Your task to perform on an android device: toggle airplane mode Image 0: 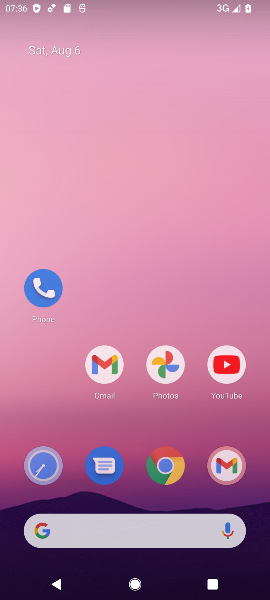
Step 0: press home button
Your task to perform on an android device: toggle airplane mode Image 1: 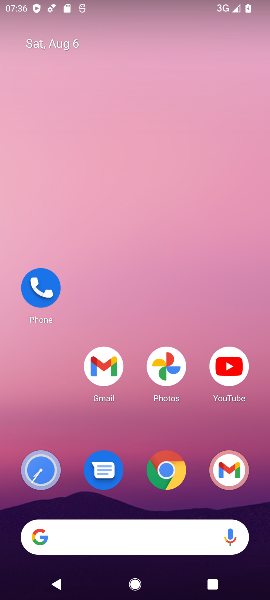
Step 1: drag from (116, 422) to (151, 11)
Your task to perform on an android device: toggle airplane mode Image 2: 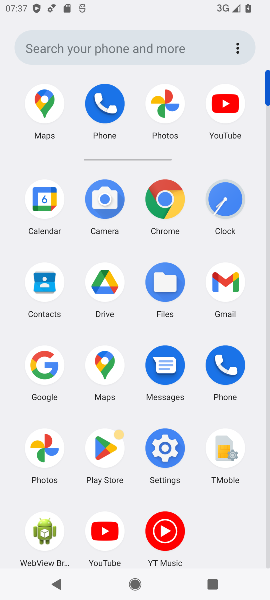
Step 2: drag from (165, 18) to (232, 592)
Your task to perform on an android device: toggle airplane mode Image 3: 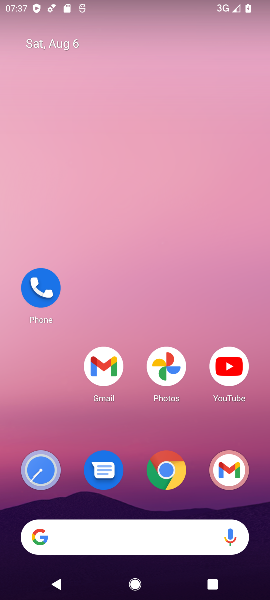
Step 3: drag from (141, 4) to (252, 520)
Your task to perform on an android device: toggle airplane mode Image 4: 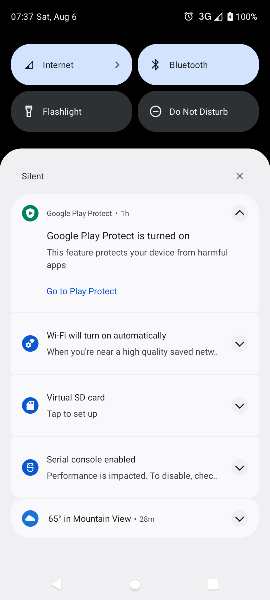
Step 4: drag from (135, 127) to (124, 590)
Your task to perform on an android device: toggle airplane mode Image 5: 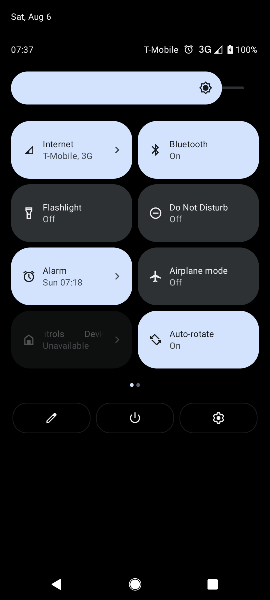
Step 5: click (194, 277)
Your task to perform on an android device: toggle airplane mode Image 6: 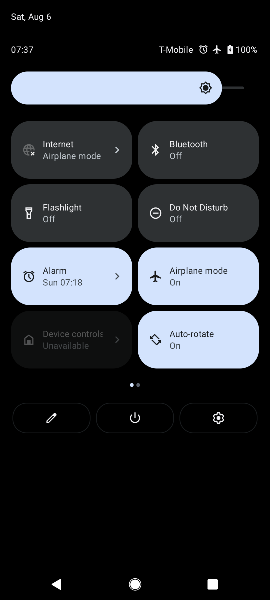
Step 6: task complete